Your task to perform on an android device: turn pop-ups off in chrome Image 0: 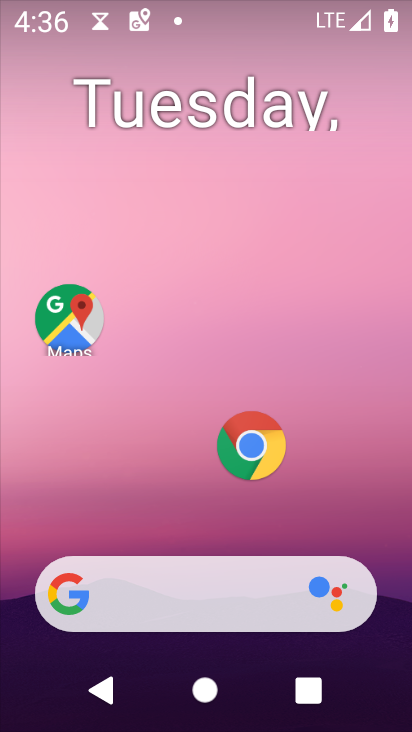
Step 0: click (250, 442)
Your task to perform on an android device: turn pop-ups off in chrome Image 1: 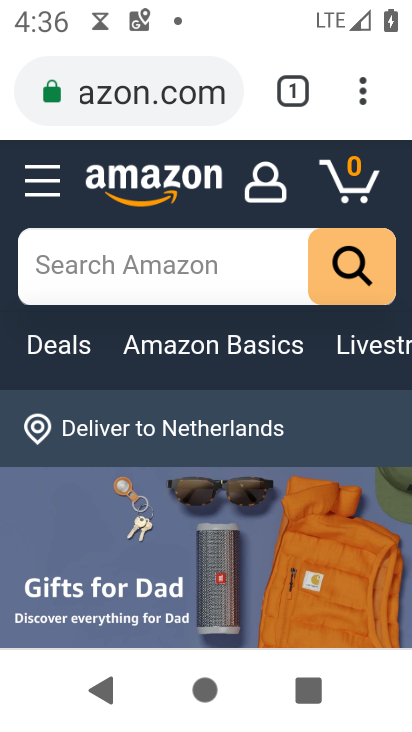
Step 1: click (365, 89)
Your task to perform on an android device: turn pop-ups off in chrome Image 2: 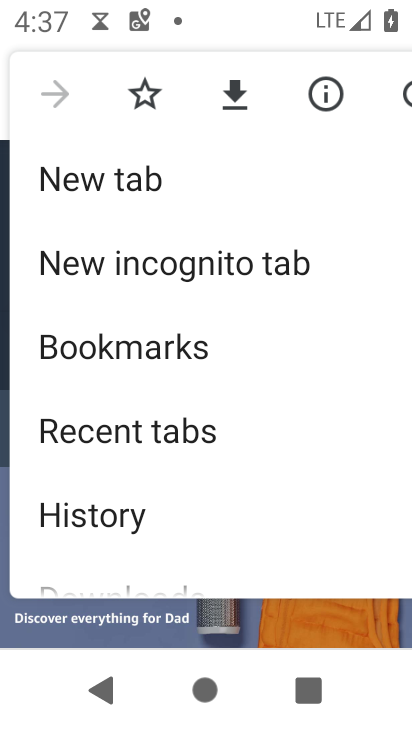
Step 2: drag from (168, 443) to (235, 75)
Your task to perform on an android device: turn pop-ups off in chrome Image 3: 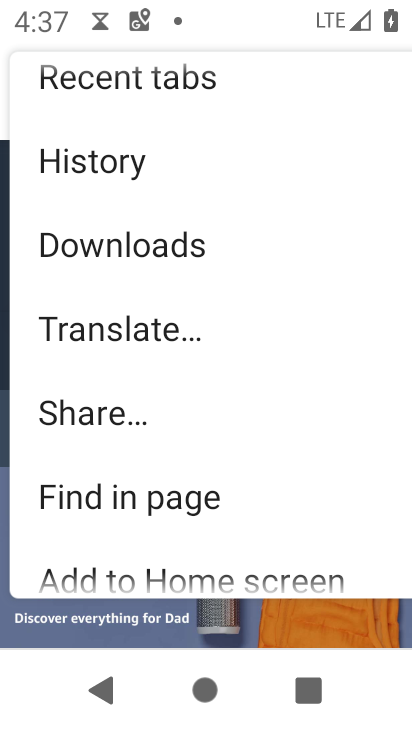
Step 3: drag from (162, 473) to (182, 220)
Your task to perform on an android device: turn pop-ups off in chrome Image 4: 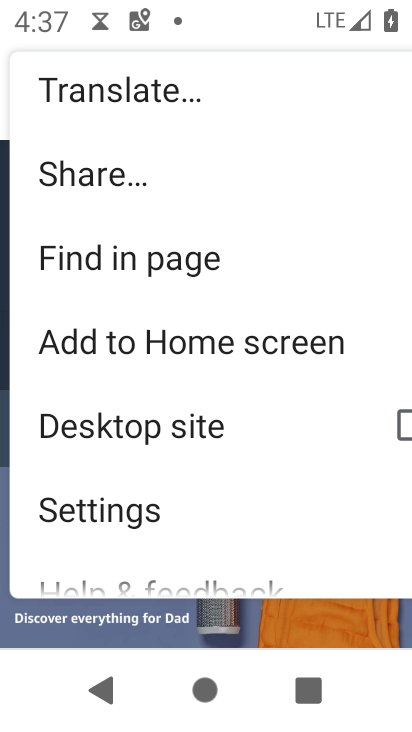
Step 4: click (130, 516)
Your task to perform on an android device: turn pop-ups off in chrome Image 5: 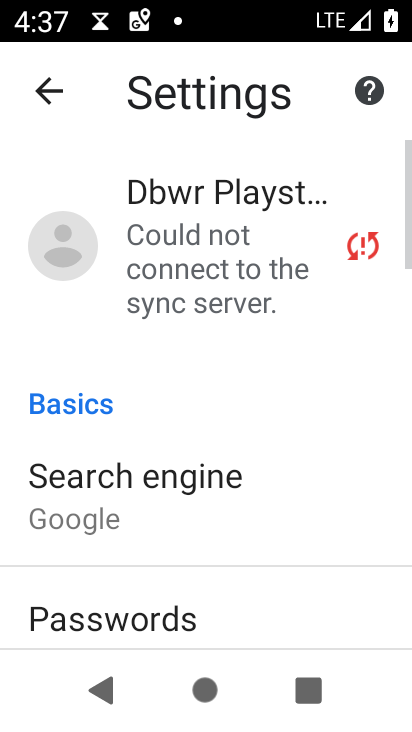
Step 5: drag from (140, 555) to (239, 41)
Your task to perform on an android device: turn pop-ups off in chrome Image 6: 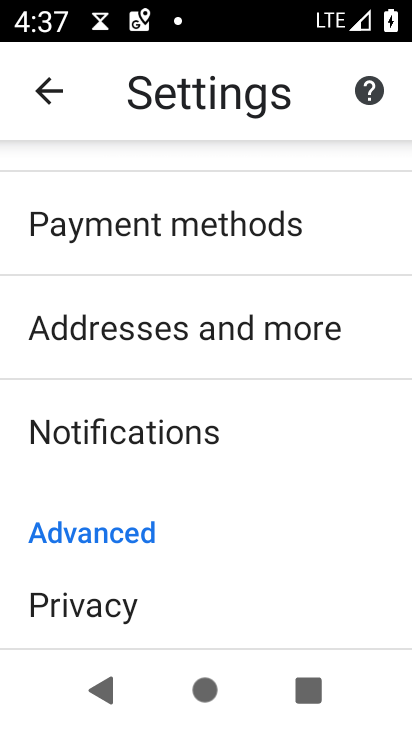
Step 6: drag from (147, 570) to (178, 304)
Your task to perform on an android device: turn pop-ups off in chrome Image 7: 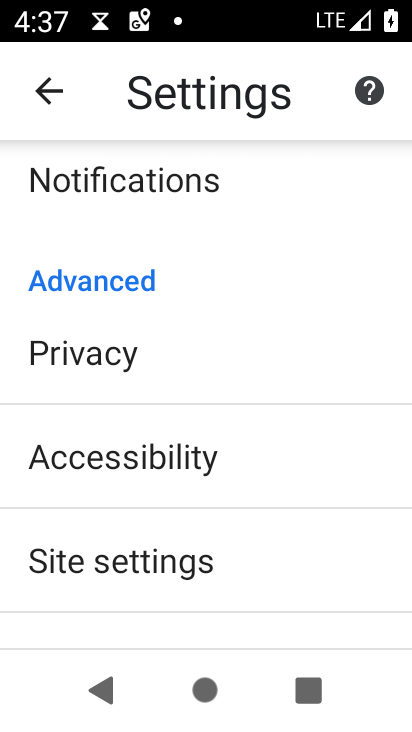
Step 7: click (128, 571)
Your task to perform on an android device: turn pop-ups off in chrome Image 8: 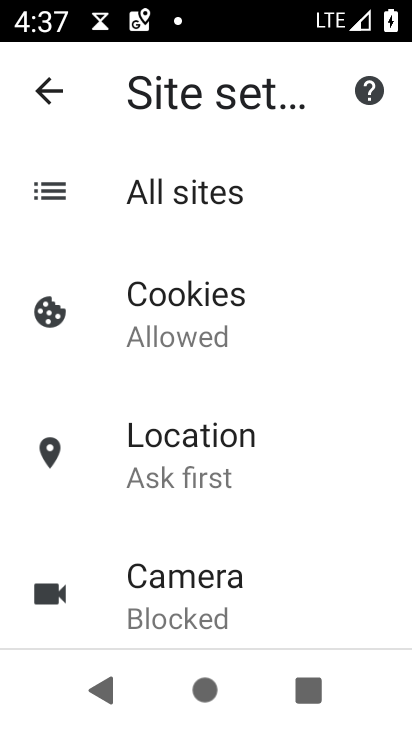
Step 8: drag from (195, 534) to (248, 164)
Your task to perform on an android device: turn pop-ups off in chrome Image 9: 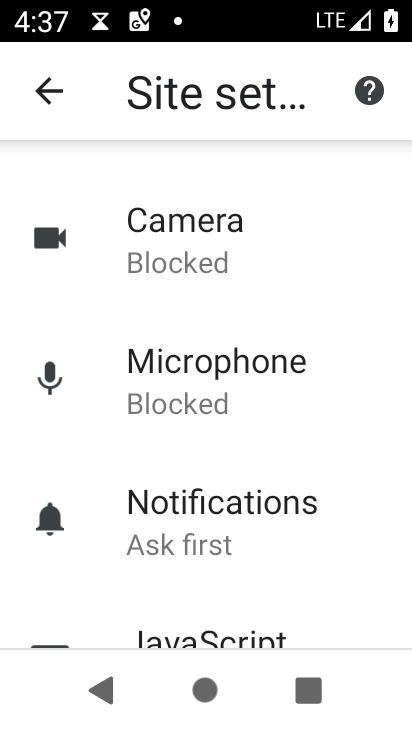
Step 9: drag from (242, 440) to (269, 287)
Your task to perform on an android device: turn pop-ups off in chrome Image 10: 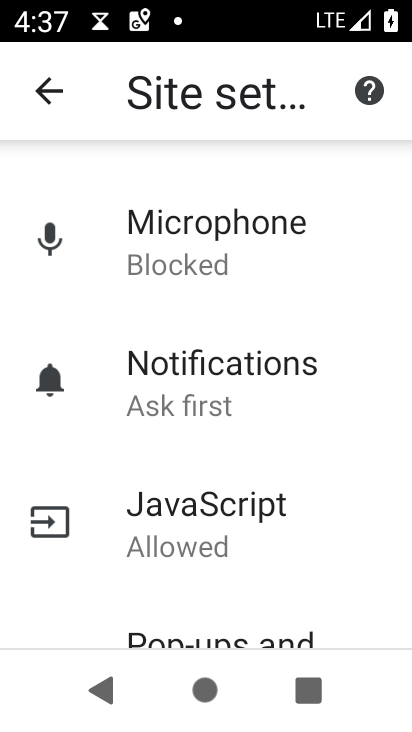
Step 10: drag from (254, 579) to (284, 145)
Your task to perform on an android device: turn pop-ups off in chrome Image 11: 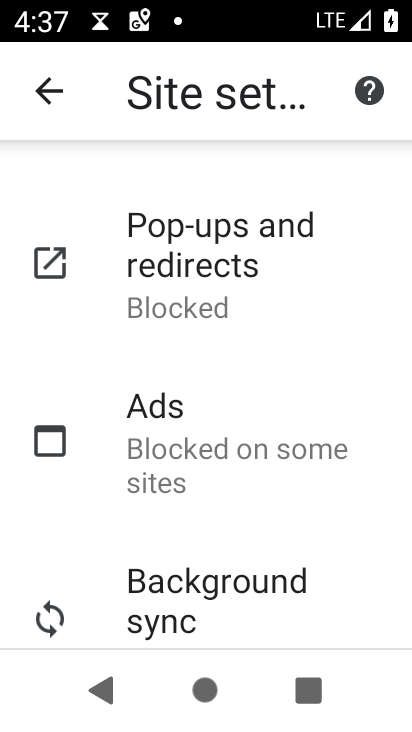
Step 11: click (196, 280)
Your task to perform on an android device: turn pop-ups off in chrome Image 12: 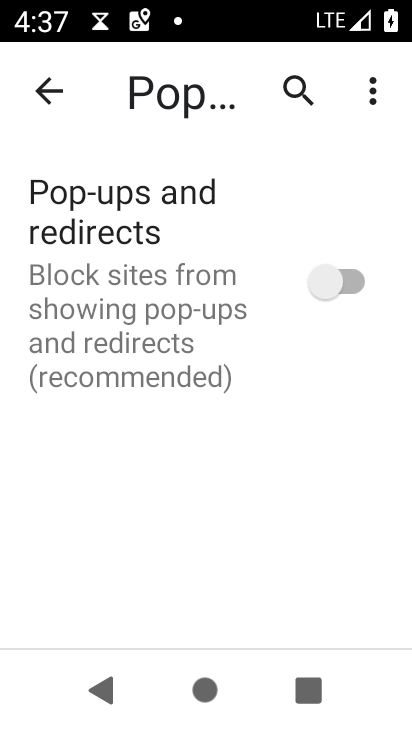
Step 12: task complete